Your task to perform on an android device: Do I have any events this weekend? Image 0: 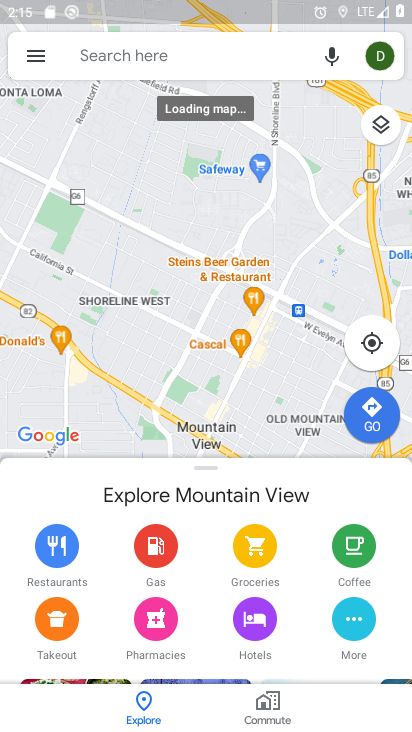
Step 0: press home button
Your task to perform on an android device: Do I have any events this weekend? Image 1: 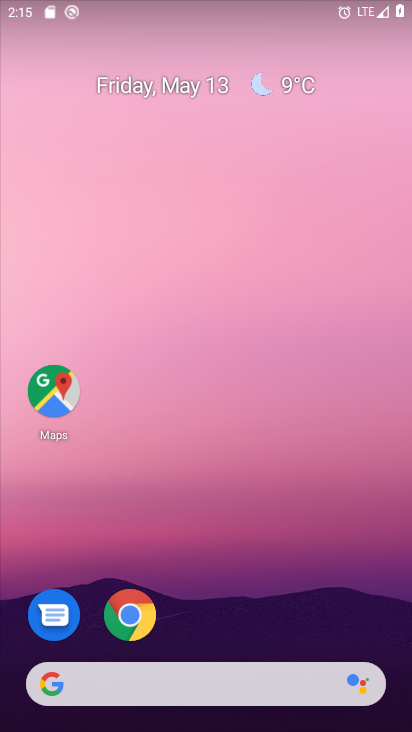
Step 1: drag from (230, 602) to (252, 2)
Your task to perform on an android device: Do I have any events this weekend? Image 2: 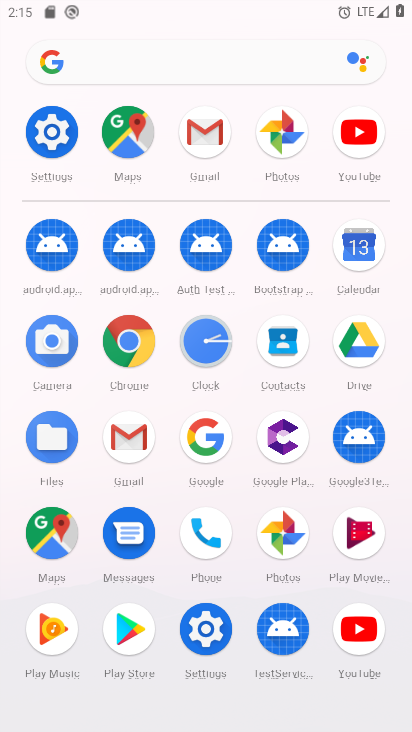
Step 2: click (353, 240)
Your task to perform on an android device: Do I have any events this weekend? Image 3: 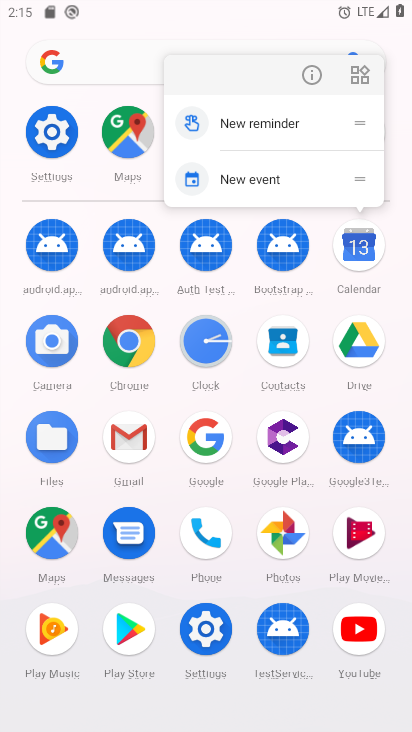
Step 3: click (363, 250)
Your task to perform on an android device: Do I have any events this weekend? Image 4: 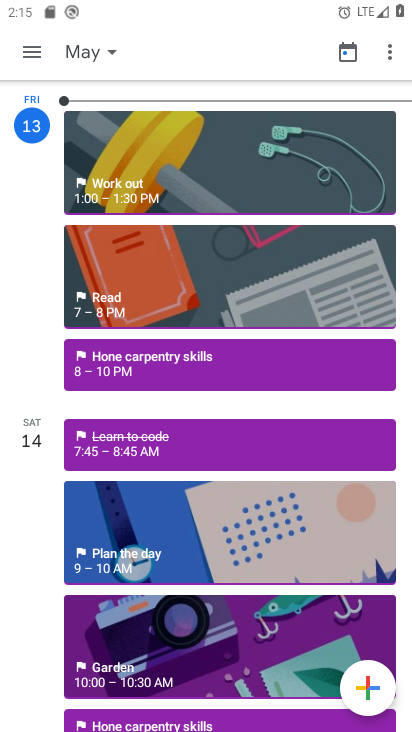
Step 4: task complete